Your task to perform on an android device: star an email in the gmail app Image 0: 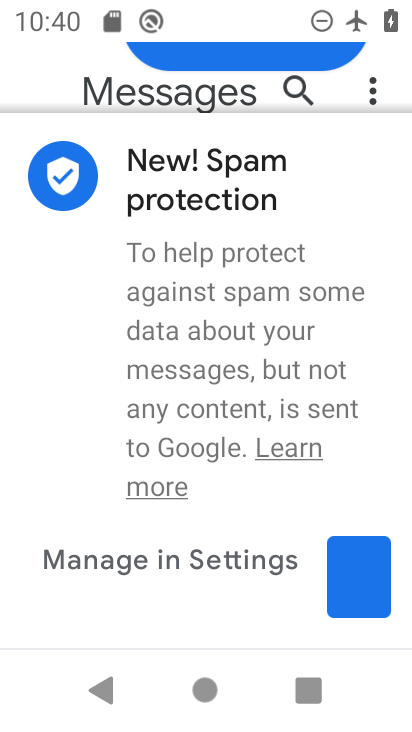
Step 0: press home button
Your task to perform on an android device: star an email in the gmail app Image 1: 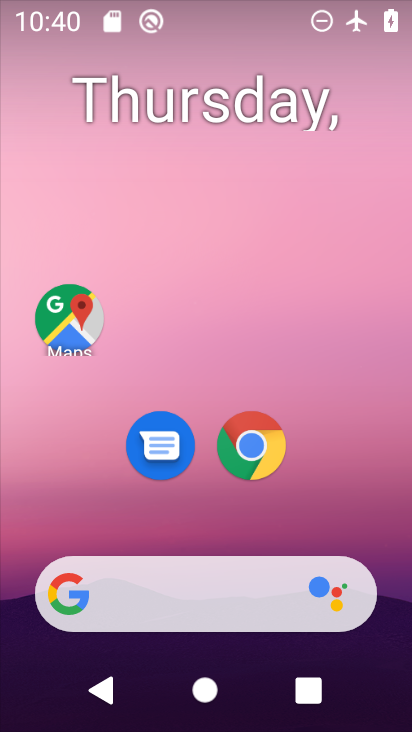
Step 1: drag from (183, 538) to (176, 4)
Your task to perform on an android device: star an email in the gmail app Image 2: 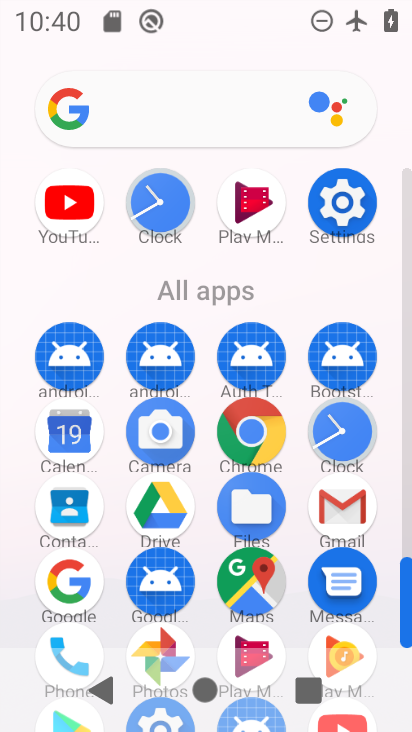
Step 2: click (346, 496)
Your task to perform on an android device: star an email in the gmail app Image 3: 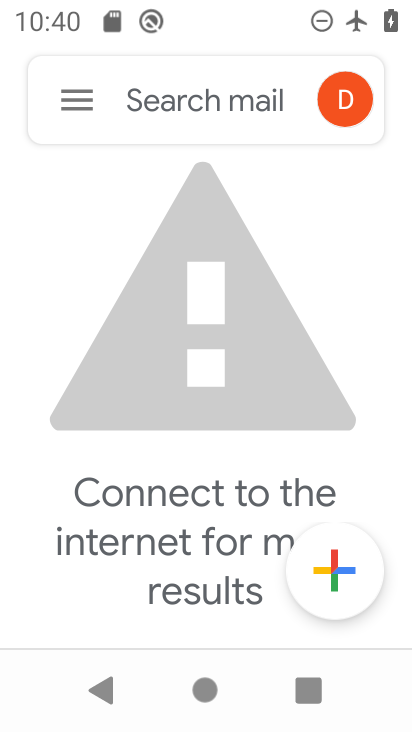
Step 3: click (74, 103)
Your task to perform on an android device: star an email in the gmail app Image 4: 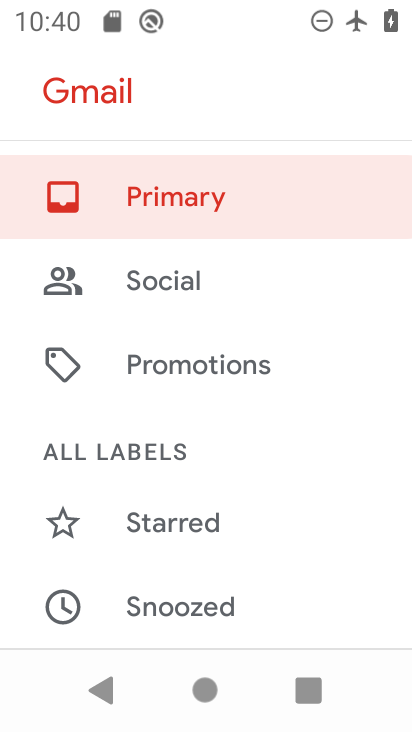
Step 4: drag from (208, 529) to (194, 221)
Your task to perform on an android device: star an email in the gmail app Image 5: 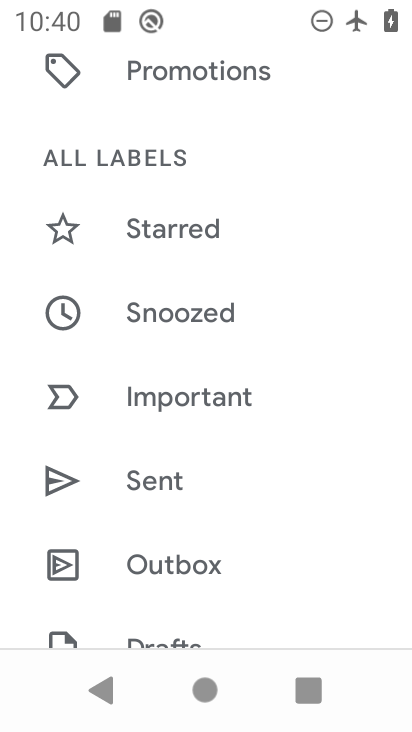
Step 5: drag from (194, 538) to (194, 199)
Your task to perform on an android device: star an email in the gmail app Image 6: 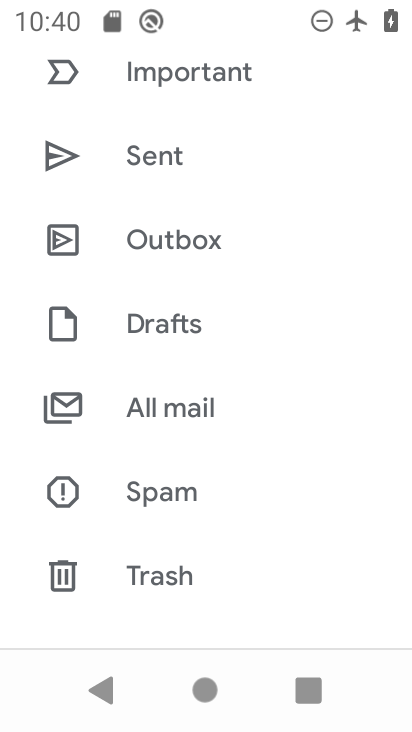
Step 6: click (169, 422)
Your task to perform on an android device: star an email in the gmail app Image 7: 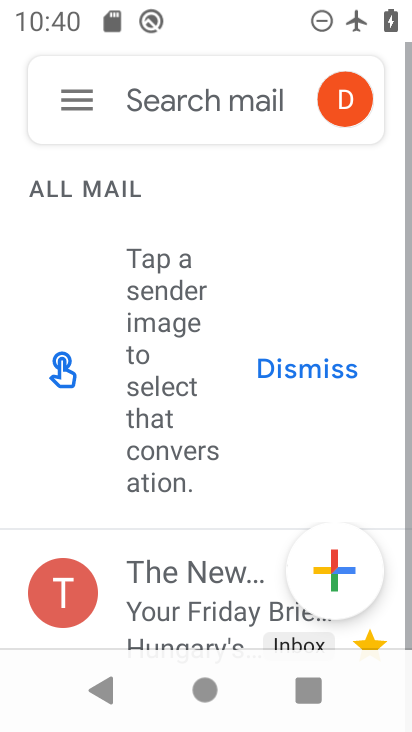
Step 7: task complete